Your task to perform on an android device: toggle notification dots Image 0: 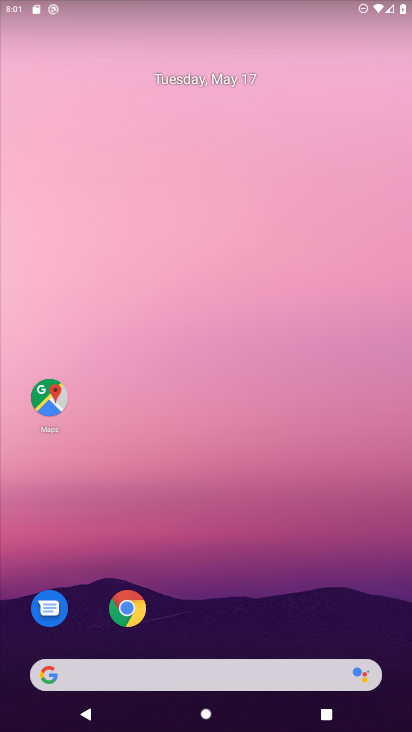
Step 0: drag from (204, 632) to (289, 7)
Your task to perform on an android device: toggle notification dots Image 1: 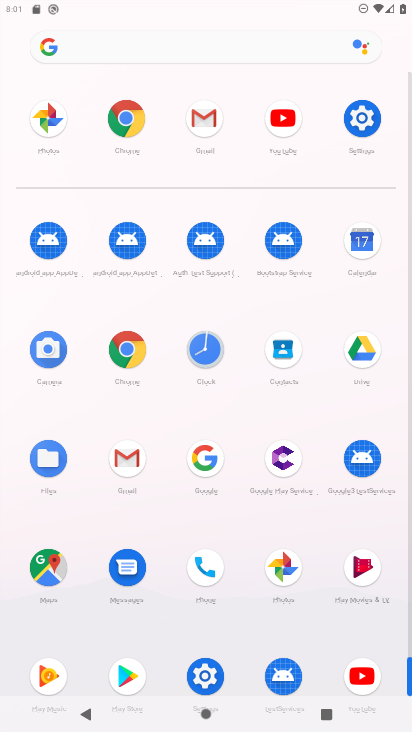
Step 1: click (361, 134)
Your task to perform on an android device: toggle notification dots Image 2: 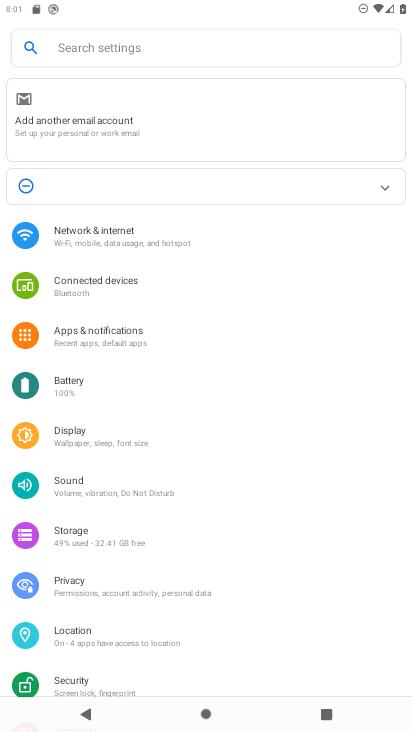
Step 2: click (132, 345)
Your task to perform on an android device: toggle notification dots Image 3: 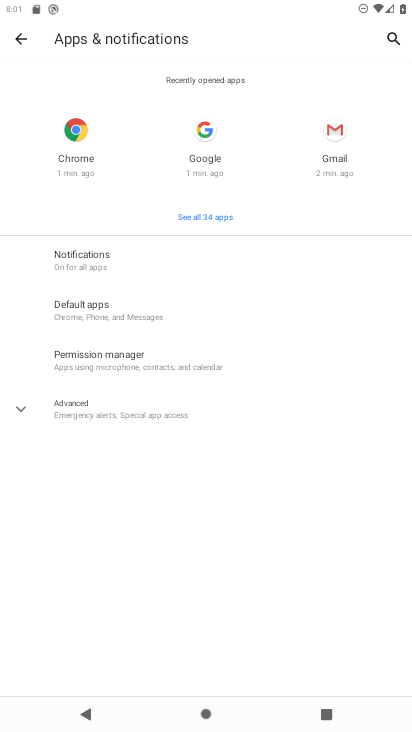
Step 3: click (89, 263)
Your task to perform on an android device: toggle notification dots Image 4: 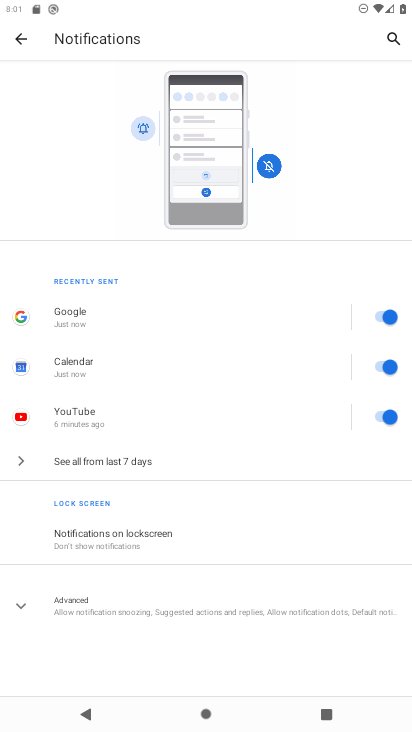
Step 4: click (129, 601)
Your task to perform on an android device: toggle notification dots Image 5: 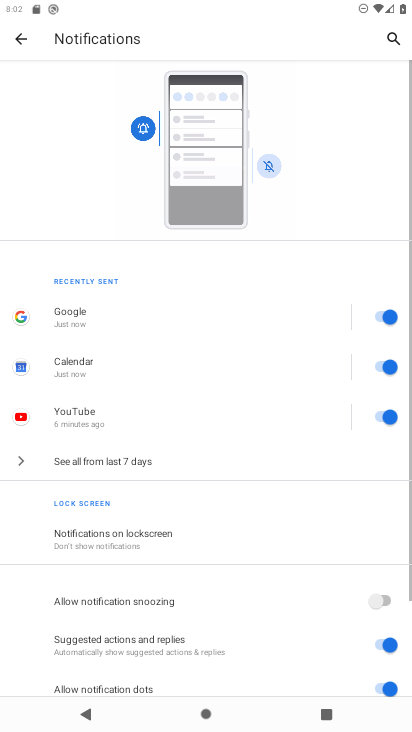
Step 5: drag from (129, 596) to (196, 323)
Your task to perform on an android device: toggle notification dots Image 6: 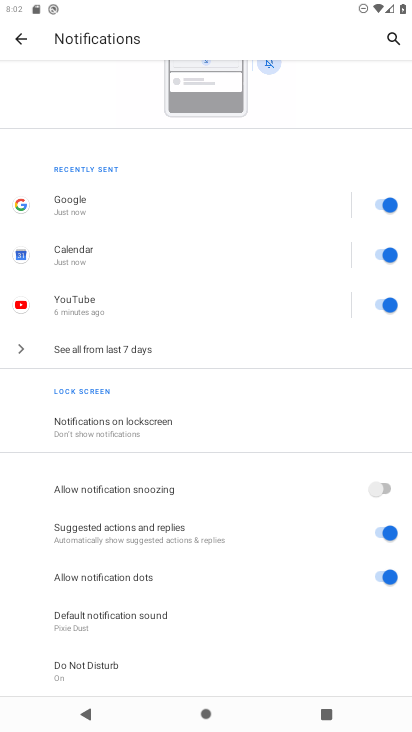
Step 6: click (379, 574)
Your task to perform on an android device: toggle notification dots Image 7: 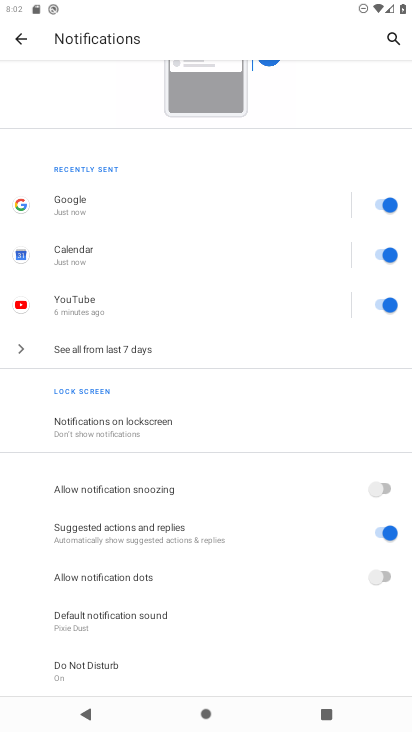
Step 7: task complete